Your task to perform on an android device: turn notification dots off Image 0: 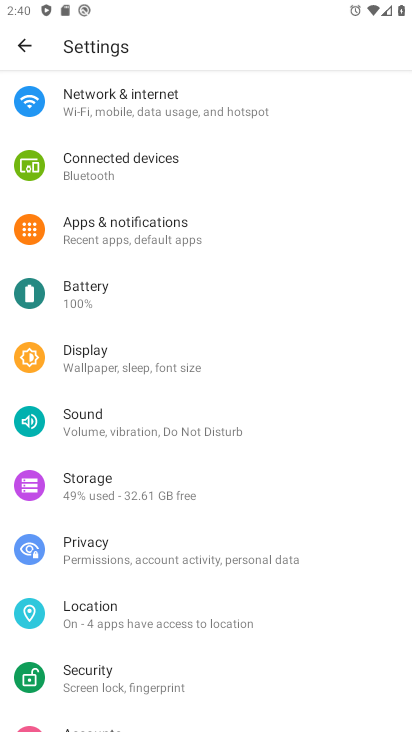
Step 0: click (127, 220)
Your task to perform on an android device: turn notification dots off Image 1: 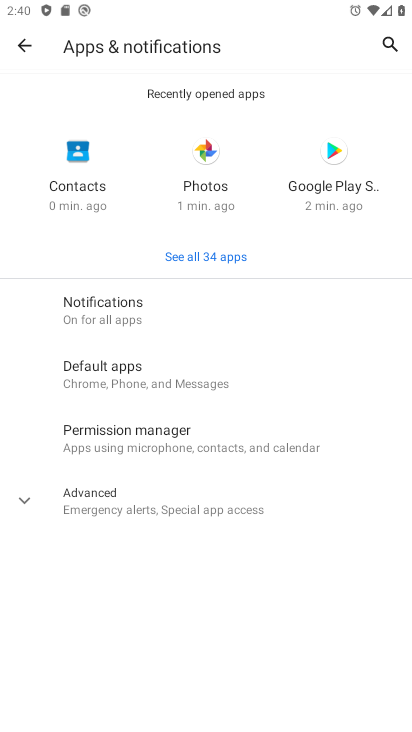
Step 1: click (125, 304)
Your task to perform on an android device: turn notification dots off Image 2: 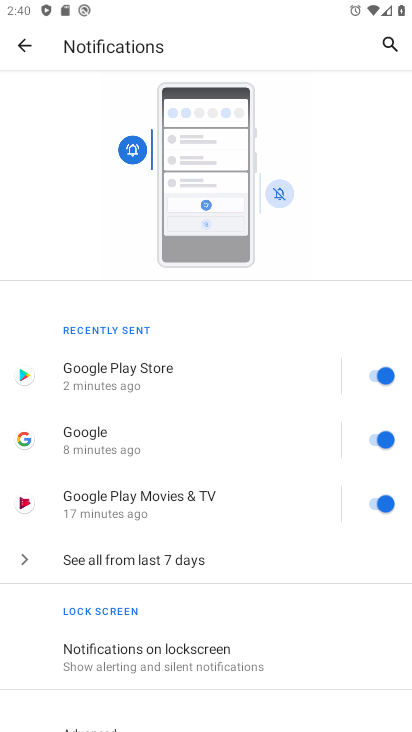
Step 2: click (213, 283)
Your task to perform on an android device: turn notification dots off Image 3: 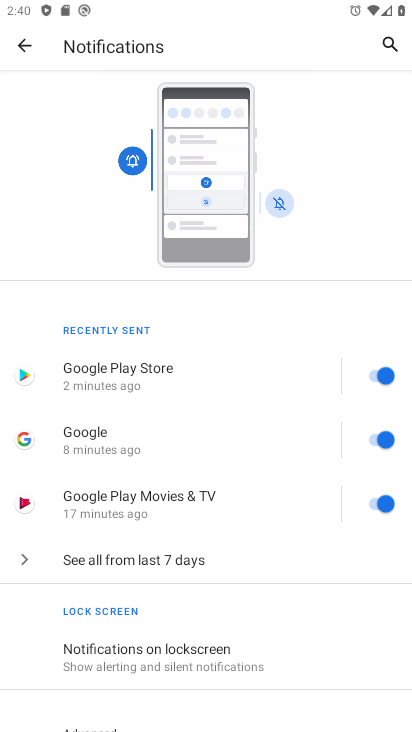
Step 3: click (195, 130)
Your task to perform on an android device: turn notification dots off Image 4: 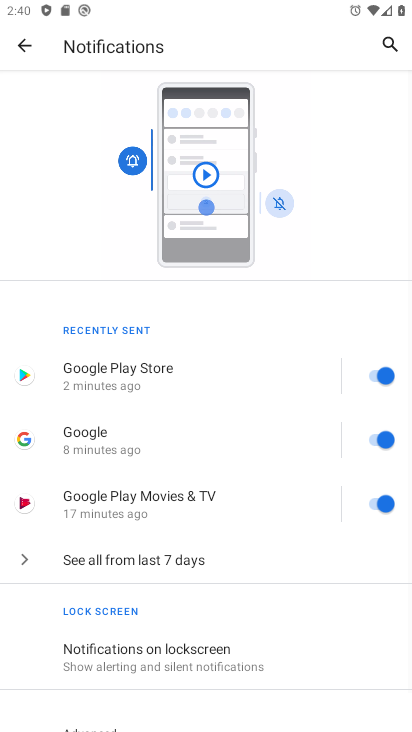
Step 4: drag from (186, 610) to (217, 238)
Your task to perform on an android device: turn notification dots off Image 5: 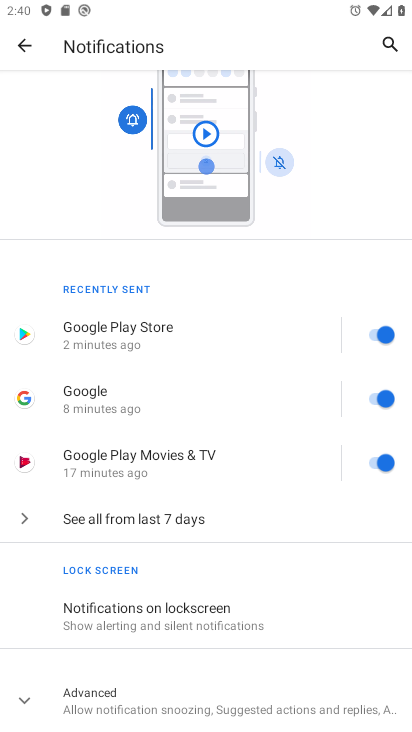
Step 5: click (71, 708)
Your task to perform on an android device: turn notification dots off Image 6: 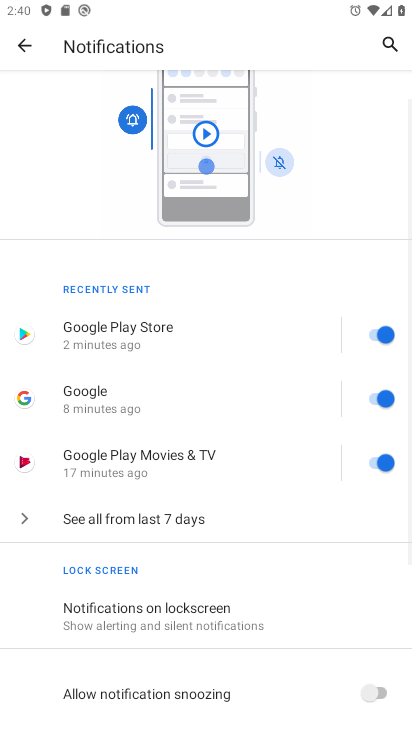
Step 6: drag from (256, 662) to (260, 111)
Your task to perform on an android device: turn notification dots off Image 7: 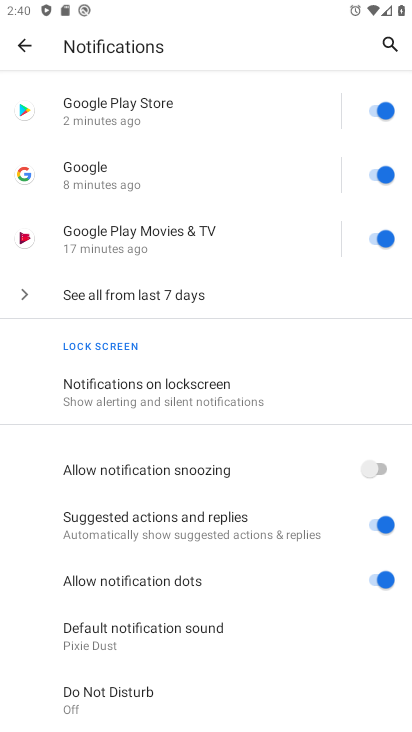
Step 7: drag from (237, 639) to (212, 160)
Your task to perform on an android device: turn notification dots off Image 8: 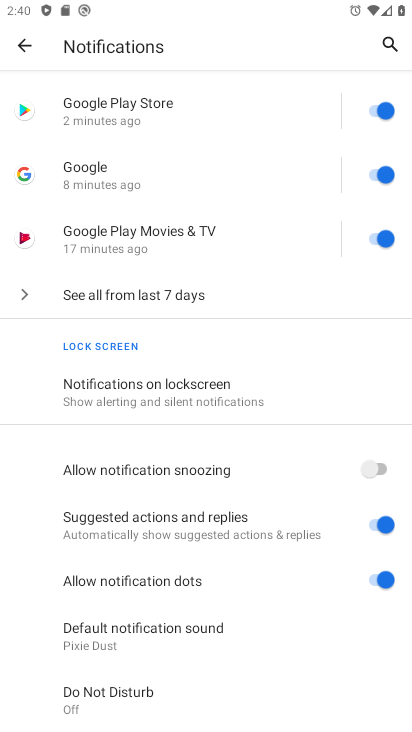
Step 8: click (382, 582)
Your task to perform on an android device: turn notification dots off Image 9: 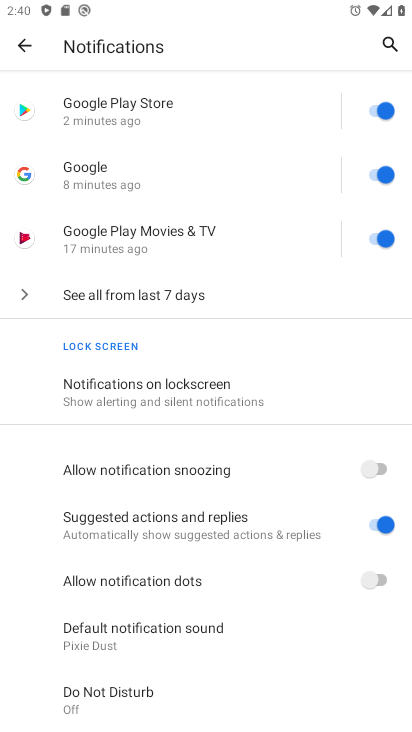
Step 9: task complete